Your task to perform on an android device: Go to internet settings Image 0: 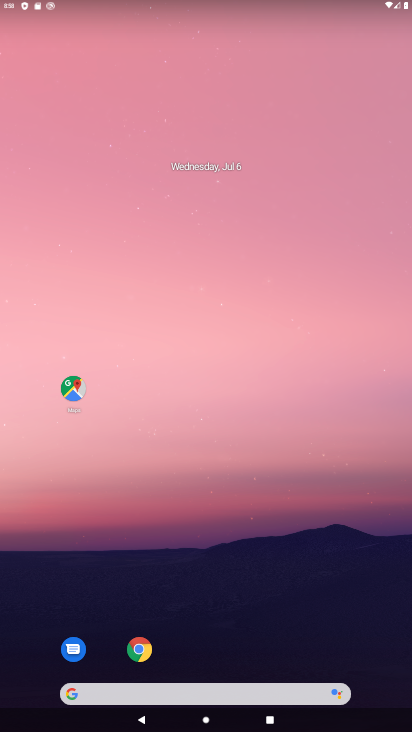
Step 0: drag from (163, 693) to (190, 172)
Your task to perform on an android device: Go to internet settings Image 1: 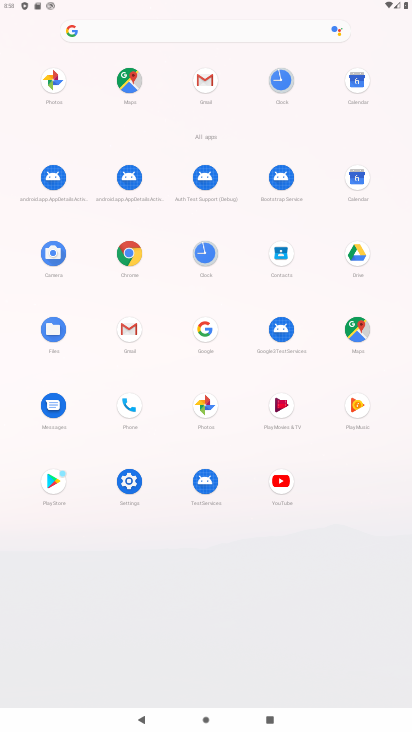
Step 1: click (130, 475)
Your task to perform on an android device: Go to internet settings Image 2: 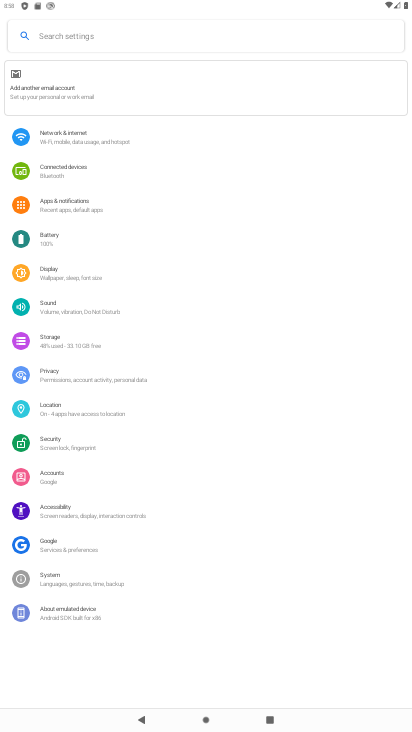
Step 2: click (120, 132)
Your task to perform on an android device: Go to internet settings Image 3: 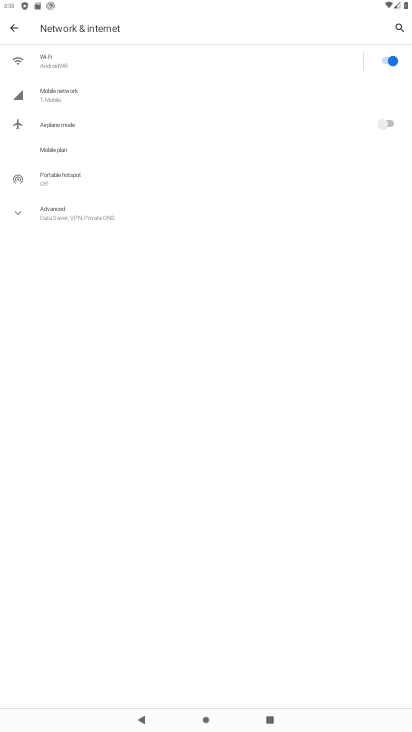
Step 3: click (85, 94)
Your task to perform on an android device: Go to internet settings Image 4: 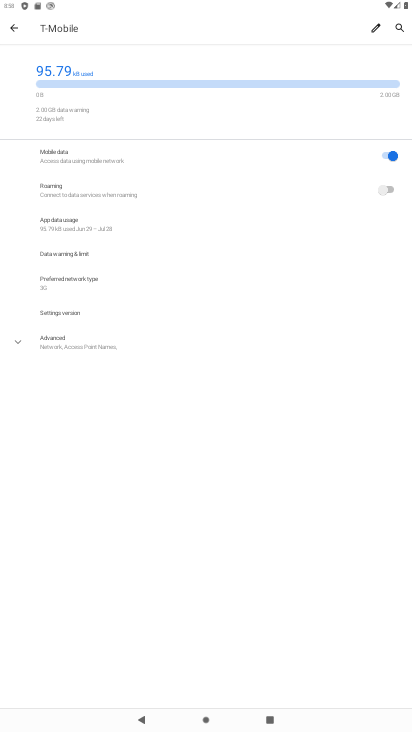
Step 4: task complete